Your task to perform on an android device: Go to location settings Image 0: 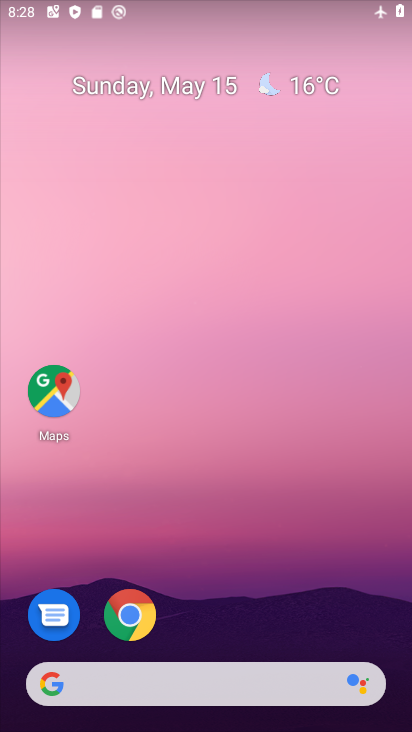
Step 0: drag from (291, 611) to (293, 124)
Your task to perform on an android device: Go to location settings Image 1: 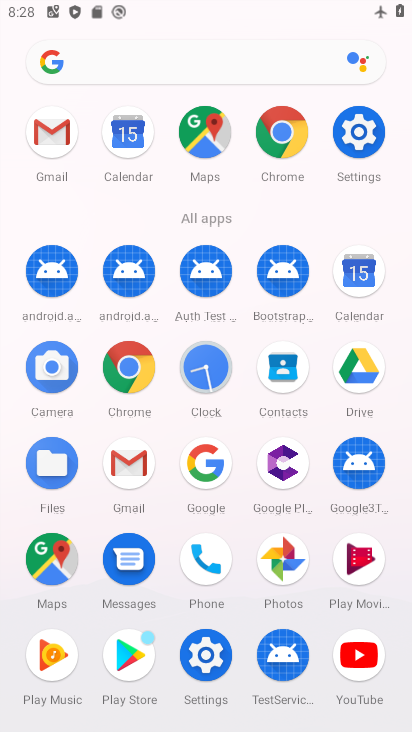
Step 1: click (369, 140)
Your task to perform on an android device: Go to location settings Image 2: 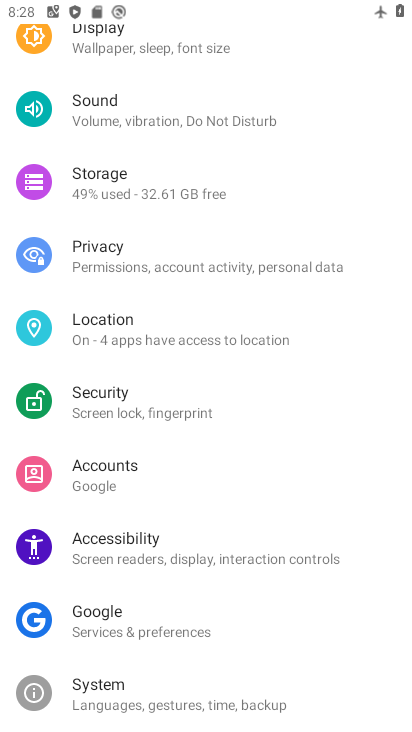
Step 2: click (187, 331)
Your task to perform on an android device: Go to location settings Image 3: 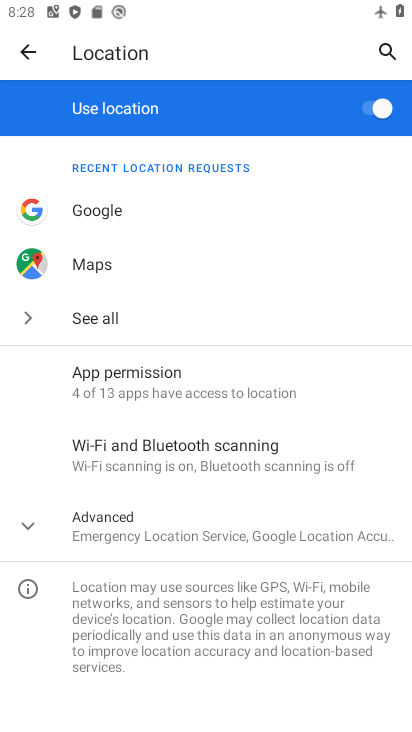
Step 3: task complete